Your task to perform on an android device: turn on sleep mode Image 0: 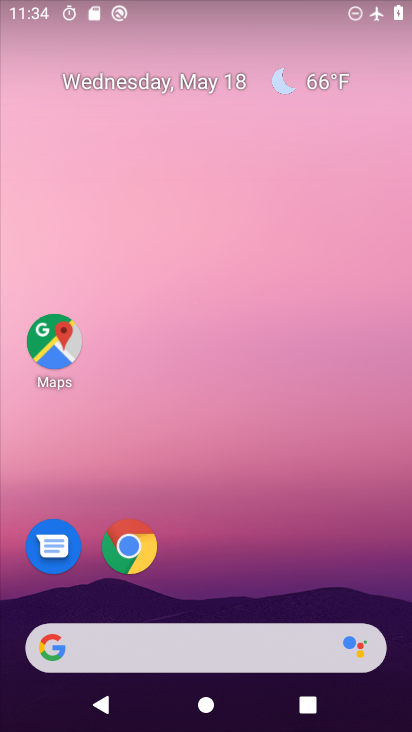
Step 0: drag from (263, 9) to (114, 692)
Your task to perform on an android device: turn on sleep mode Image 1: 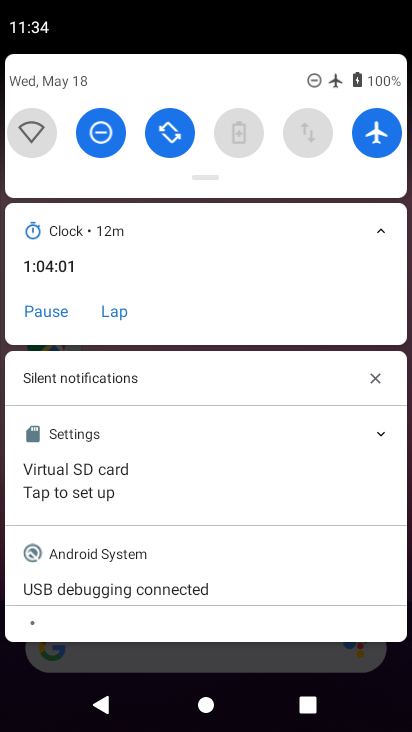
Step 1: drag from (226, 78) to (284, 582)
Your task to perform on an android device: turn on sleep mode Image 2: 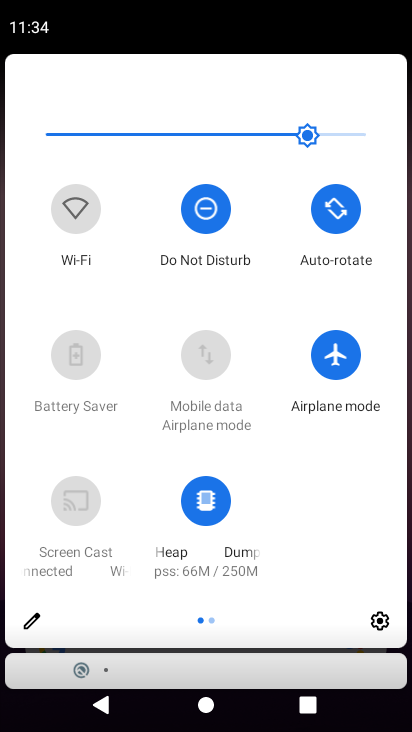
Step 2: click (378, 626)
Your task to perform on an android device: turn on sleep mode Image 3: 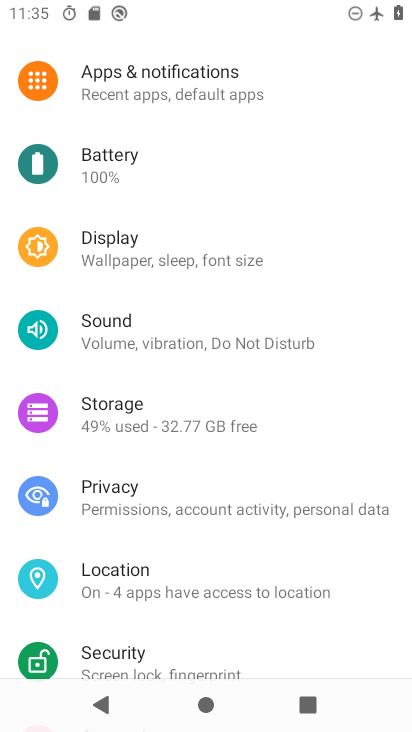
Step 3: task complete